Your task to perform on an android device: Open Android settings Image 0: 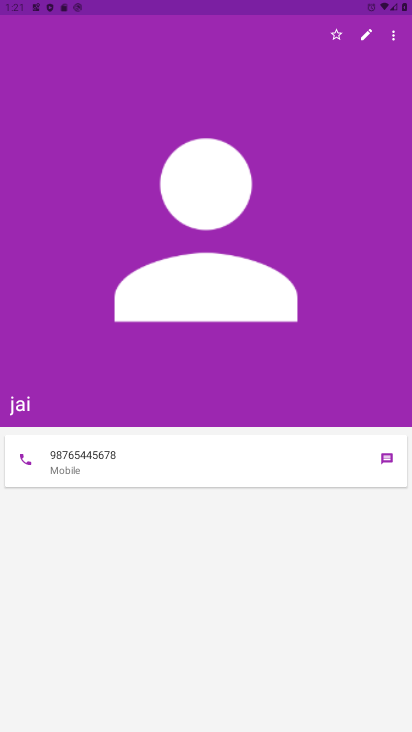
Step 0: press home button
Your task to perform on an android device: Open Android settings Image 1: 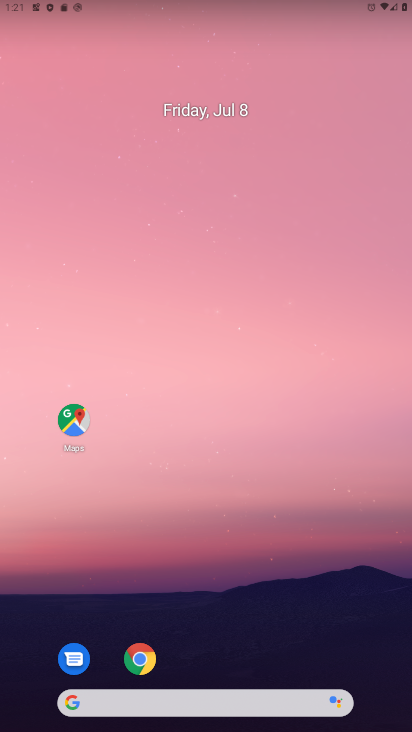
Step 1: drag from (242, 626) to (154, 222)
Your task to perform on an android device: Open Android settings Image 2: 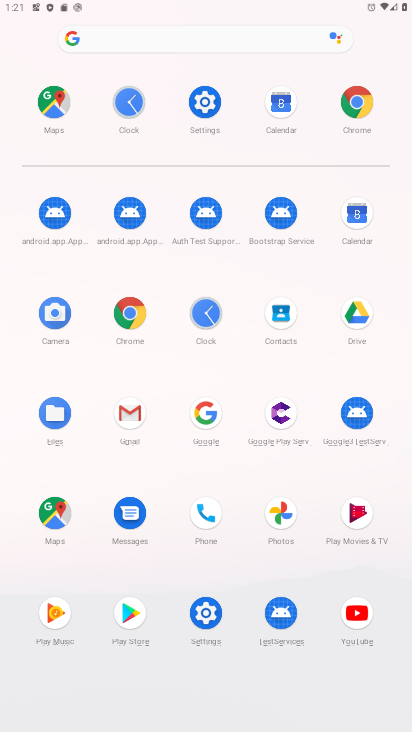
Step 2: click (198, 103)
Your task to perform on an android device: Open Android settings Image 3: 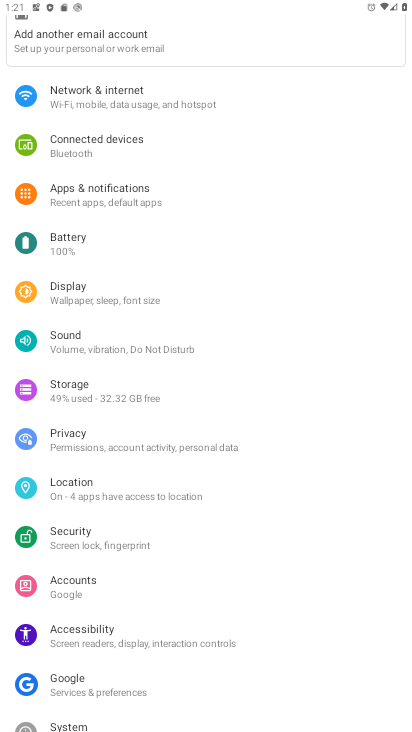
Step 3: task complete